Your task to perform on an android device: Go to Yahoo.com Image 0: 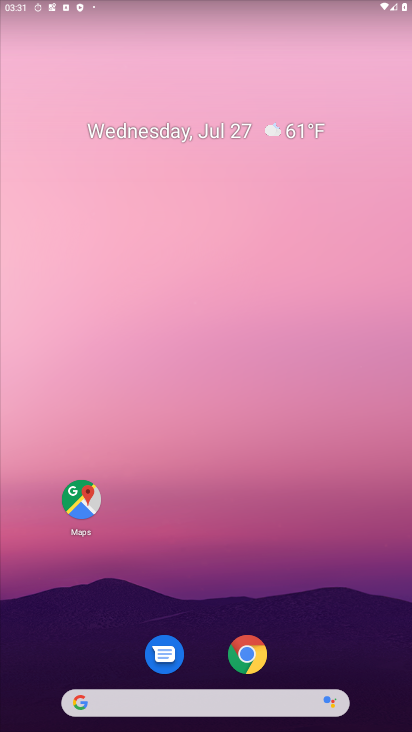
Step 0: drag from (212, 686) to (328, 56)
Your task to perform on an android device: Go to Yahoo.com Image 1: 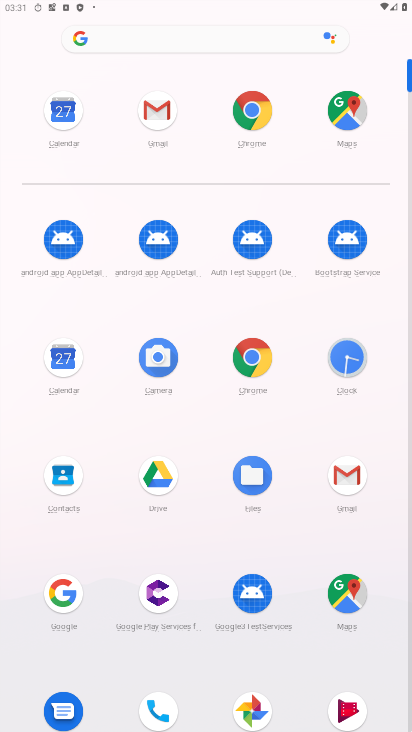
Step 1: click (246, 347)
Your task to perform on an android device: Go to Yahoo.com Image 2: 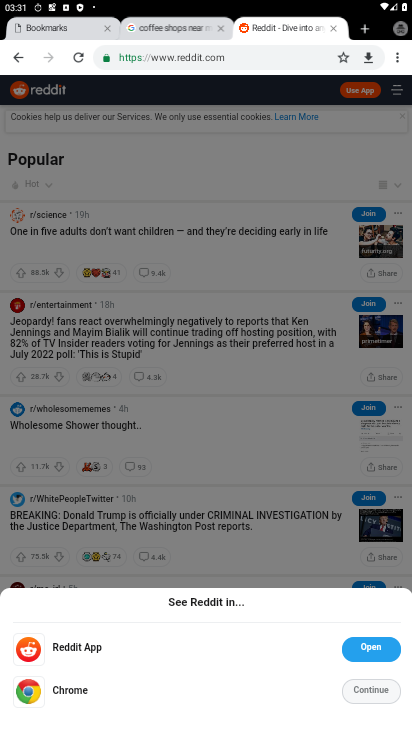
Step 2: click (172, 57)
Your task to perform on an android device: Go to Yahoo.com Image 3: 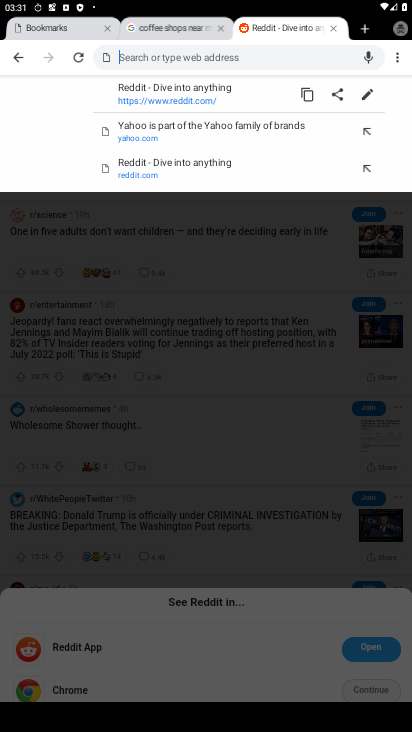
Step 3: task complete